Your task to perform on an android device: turn off location history Image 0: 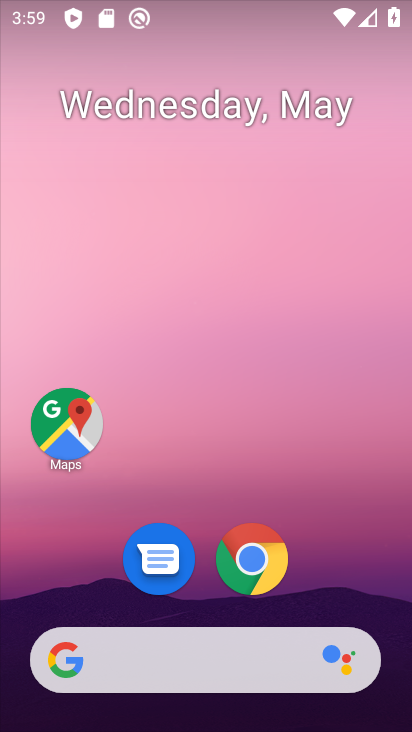
Step 0: drag from (341, 511) to (271, 115)
Your task to perform on an android device: turn off location history Image 1: 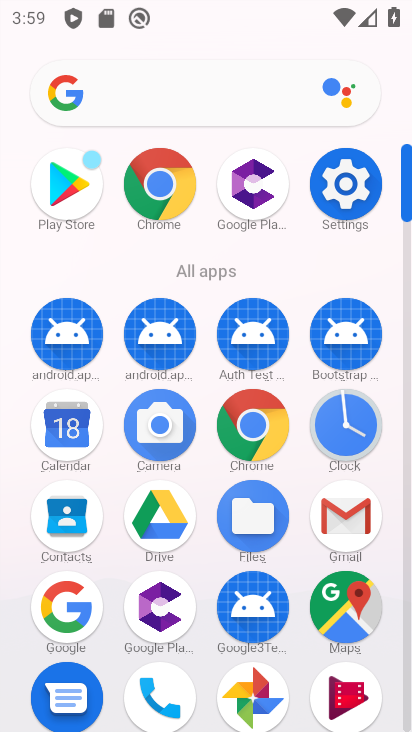
Step 1: click (349, 190)
Your task to perform on an android device: turn off location history Image 2: 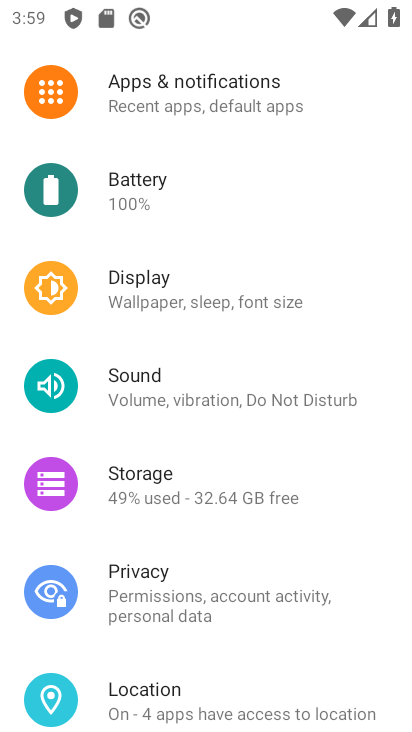
Step 2: click (219, 689)
Your task to perform on an android device: turn off location history Image 3: 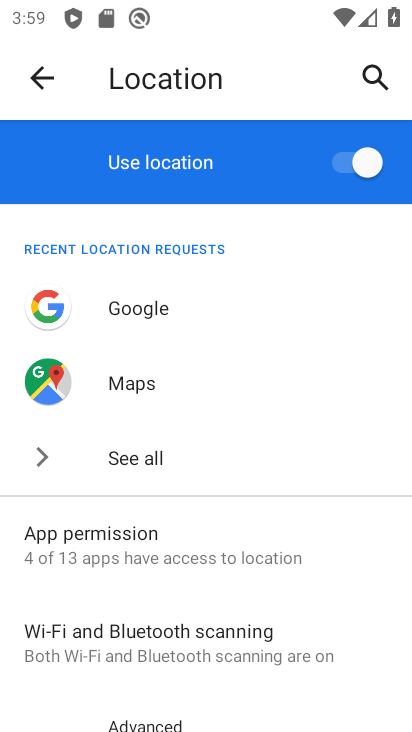
Step 3: drag from (270, 563) to (289, 192)
Your task to perform on an android device: turn off location history Image 4: 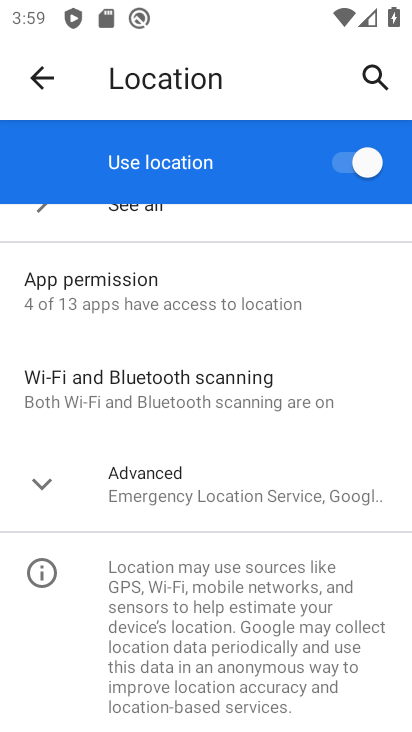
Step 4: click (221, 484)
Your task to perform on an android device: turn off location history Image 5: 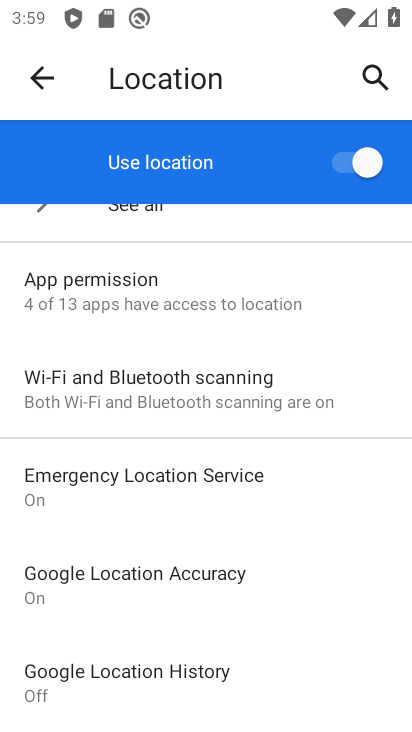
Step 5: click (233, 680)
Your task to perform on an android device: turn off location history Image 6: 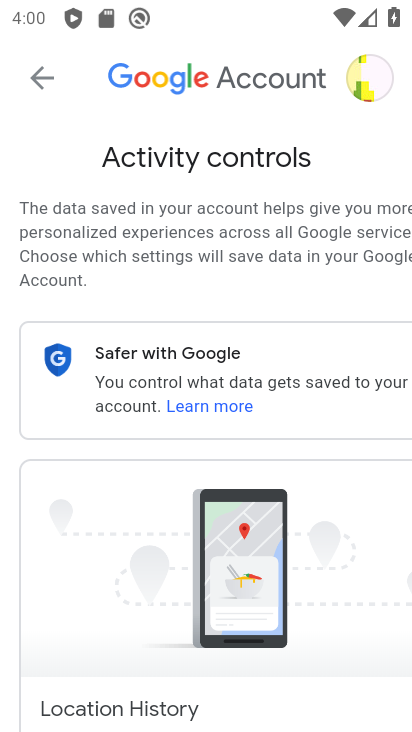
Step 6: drag from (313, 581) to (261, 50)
Your task to perform on an android device: turn off location history Image 7: 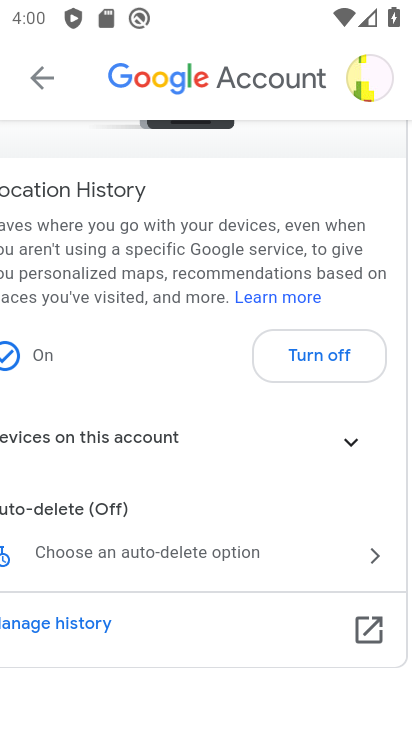
Step 7: click (313, 361)
Your task to perform on an android device: turn off location history Image 8: 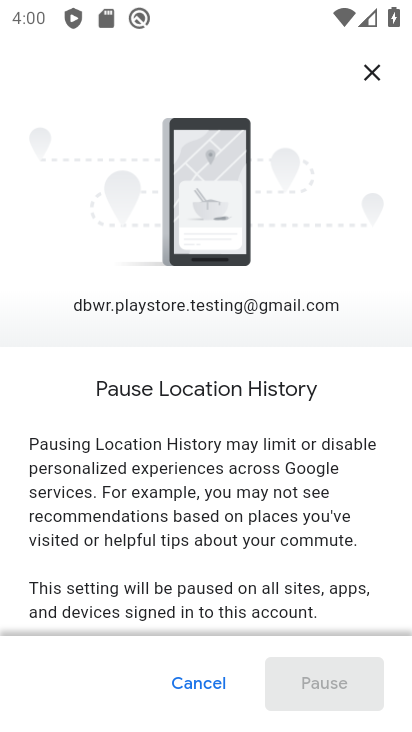
Step 8: drag from (296, 560) to (229, 64)
Your task to perform on an android device: turn off location history Image 9: 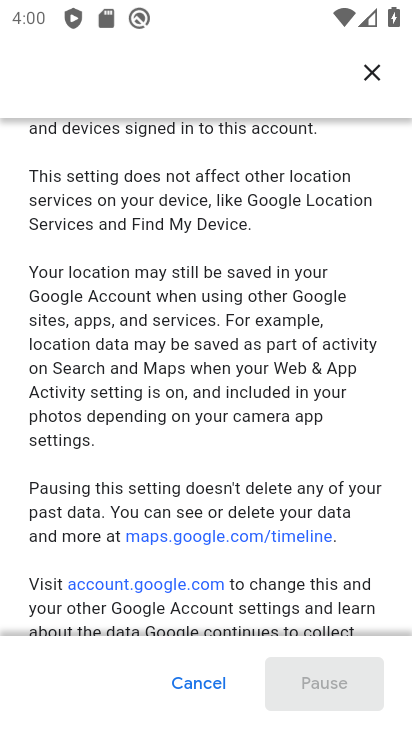
Step 9: drag from (254, 460) to (220, 151)
Your task to perform on an android device: turn off location history Image 10: 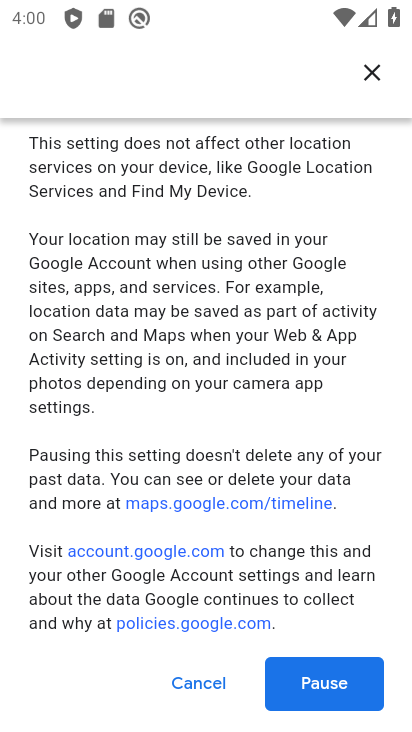
Step 10: click (334, 684)
Your task to perform on an android device: turn off location history Image 11: 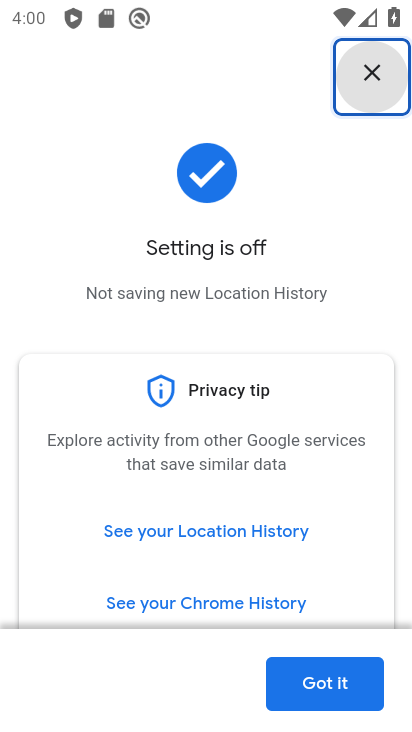
Step 11: click (330, 699)
Your task to perform on an android device: turn off location history Image 12: 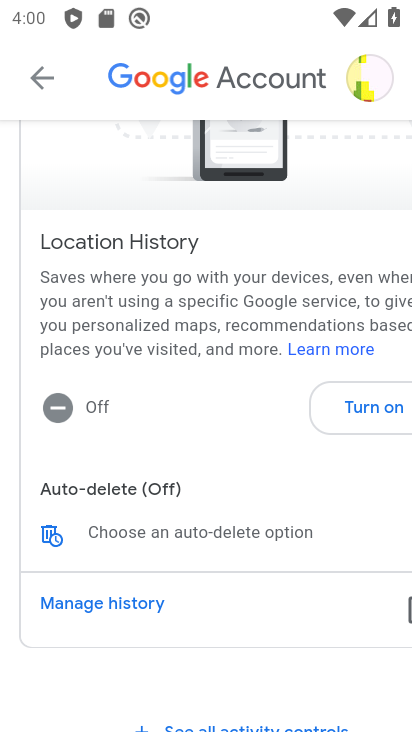
Step 12: task complete